Your task to perform on an android device: Go to Amazon Image 0: 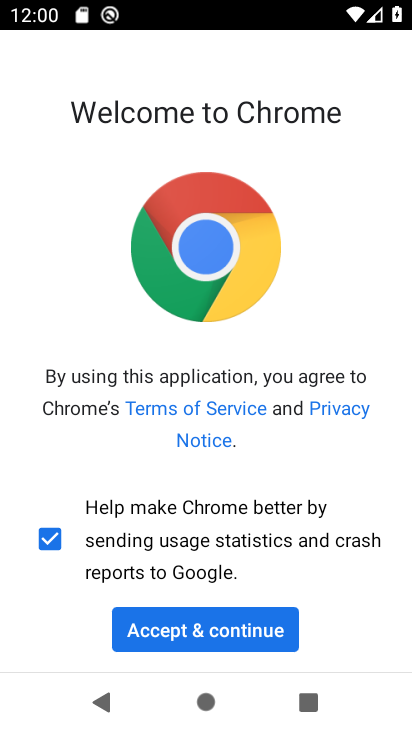
Step 0: click (290, 15)
Your task to perform on an android device: Go to Amazon Image 1: 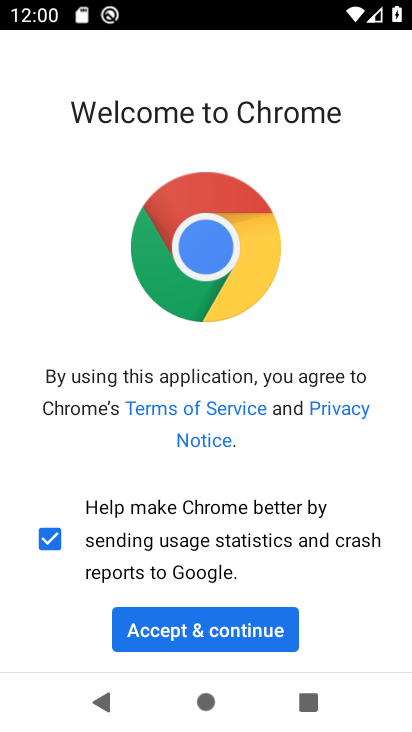
Step 1: click (192, 636)
Your task to perform on an android device: Go to Amazon Image 2: 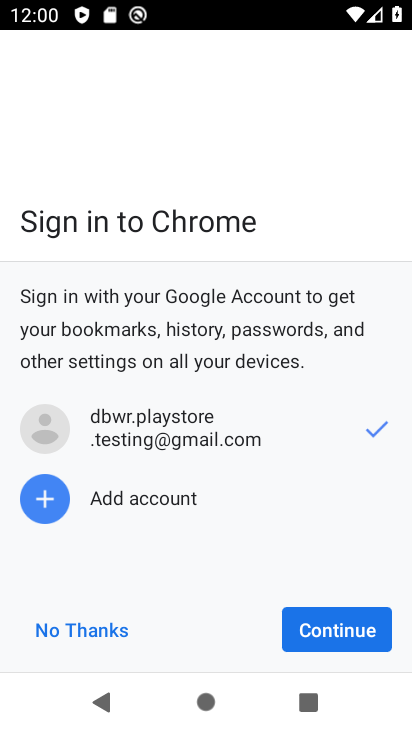
Step 2: click (337, 635)
Your task to perform on an android device: Go to Amazon Image 3: 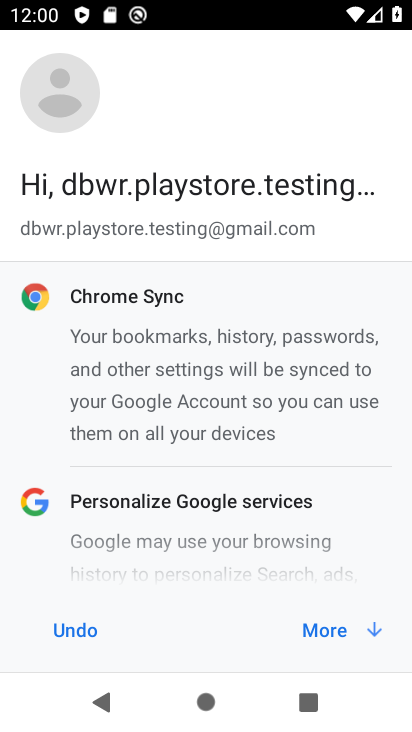
Step 3: click (336, 634)
Your task to perform on an android device: Go to Amazon Image 4: 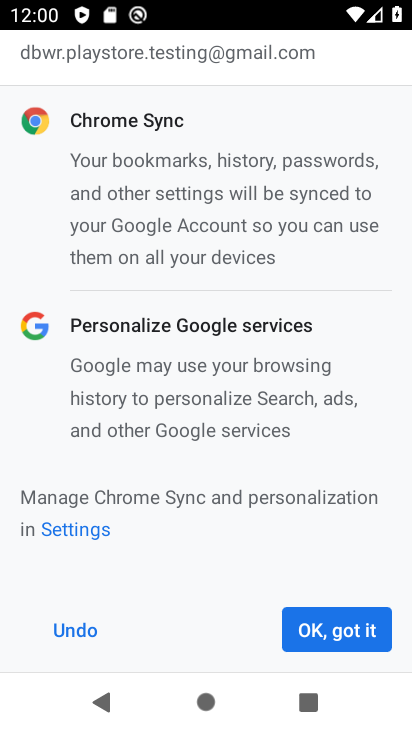
Step 4: click (336, 634)
Your task to perform on an android device: Go to Amazon Image 5: 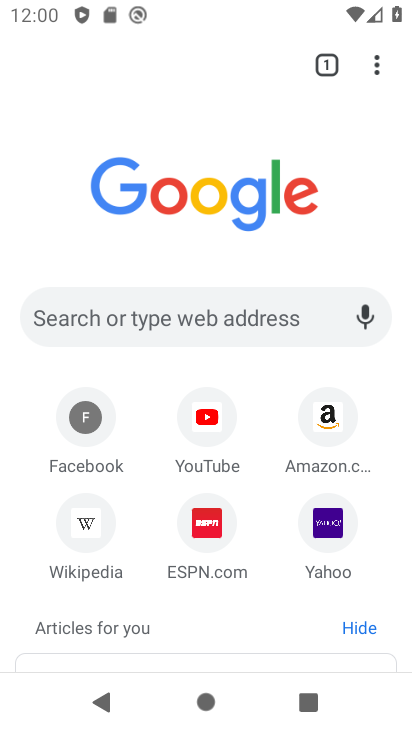
Step 5: click (334, 425)
Your task to perform on an android device: Go to Amazon Image 6: 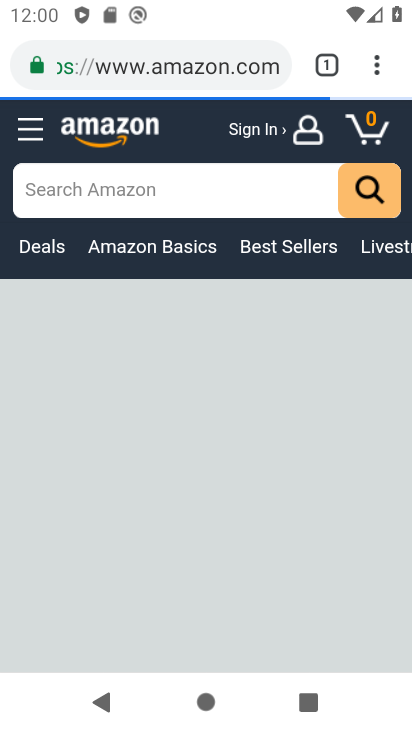
Step 6: task complete